Your task to perform on an android device: Open calendar and show me the second week of next month Image 0: 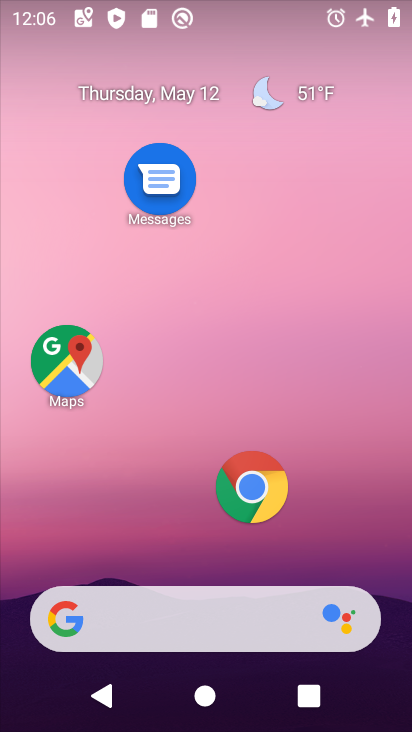
Step 0: drag from (188, 570) to (177, 215)
Your task to perform on an android device: Open calendar and show me the second week of next month Image 1: 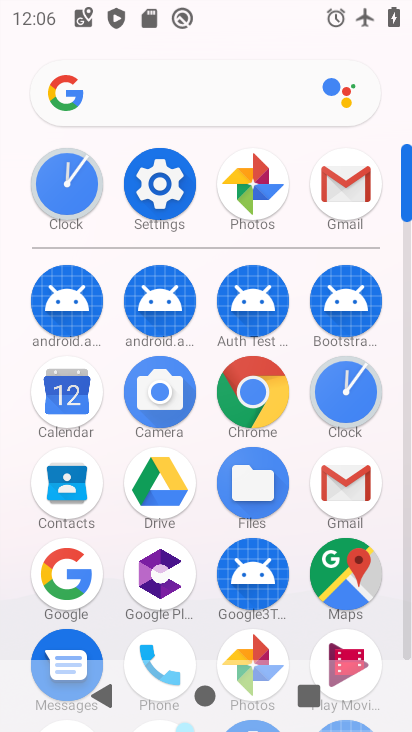
Step 1: click (69, 392)
Your task to perform on an android device: Open calendar and show me the second week of next month Image 2: 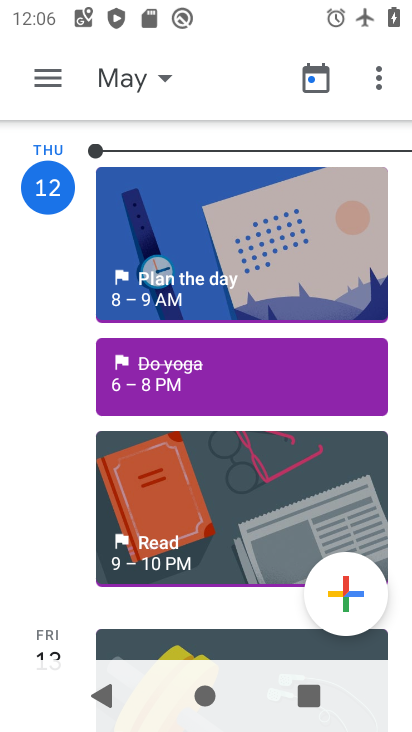
Step 2: click (151, 80)
Your task to perform on an android device: Open calendar and show me the second week of next month Image 3: 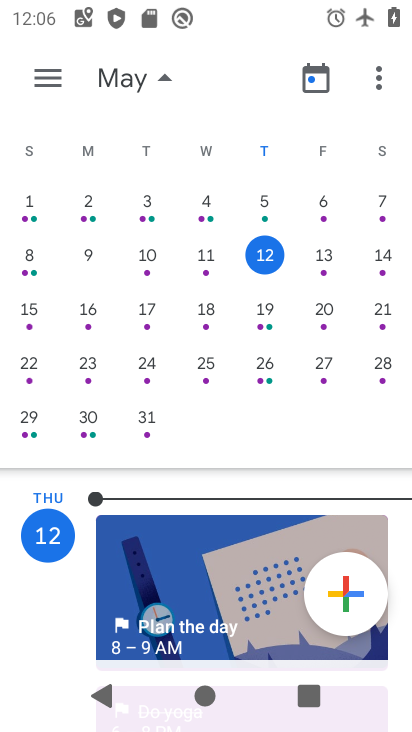
Step 3: drag from (354, 311) to (3, 277)
Your task to perform on an android device: Open calendar and show me the second week of next month Image 4: 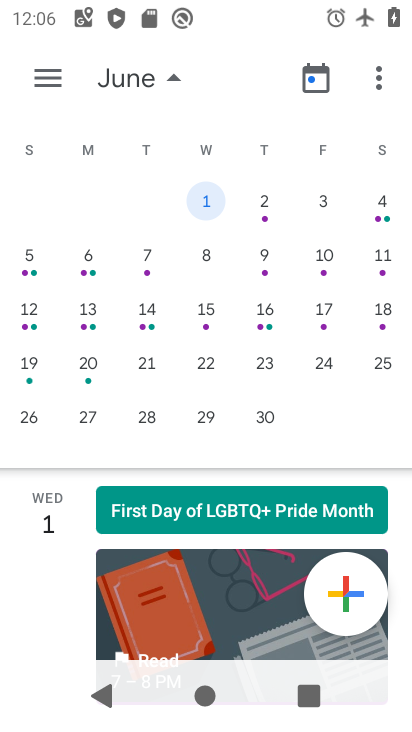
Step 4: click (64, 267)
Your task to perform on an android device: Open calendar and show me the second week of next month Image 5: 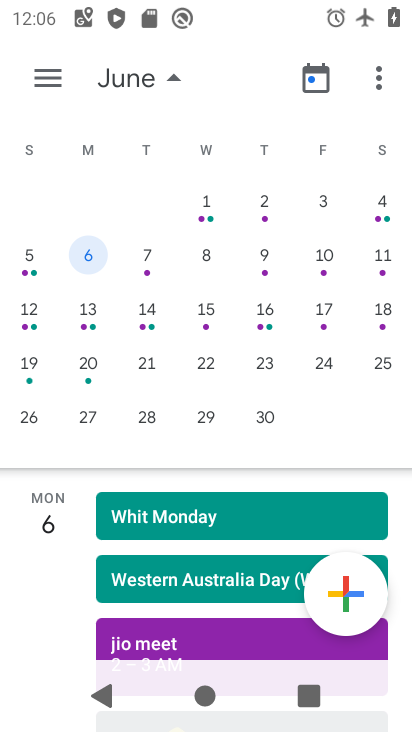
Step 5: task complete